Your task to perform on an android device: Look up the best rated 3d printer on Ali Express Image 0: 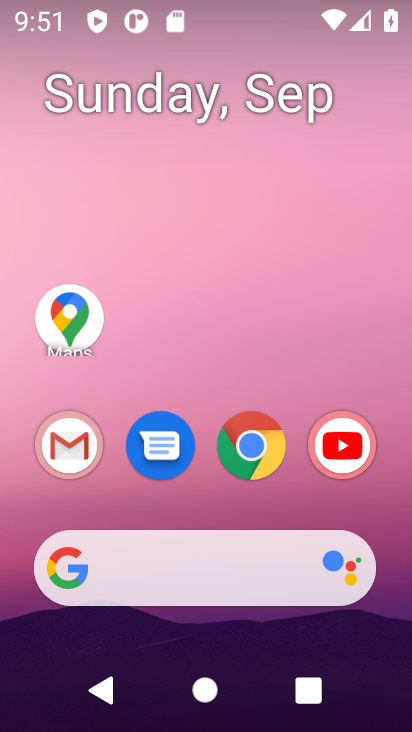
Step 0: drag from (104, 602) to (0, 446)
Your task to perform on an android device: Look up the best rated 3d printer on Ali Express Image 1: 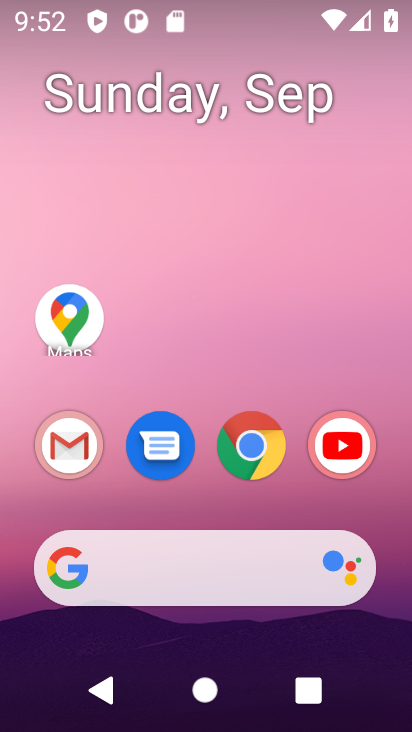
Step 1: click (263, 446)
Your task to perform on an android device: Look up the best rated 3d printer on Ali Express Image 2: 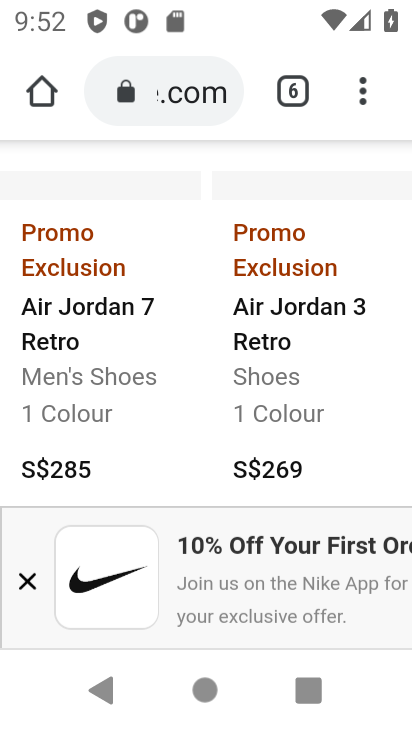
Step 2: drag from (188, 205) to (242, 400)
Your task to perform on an android device: Look up the best rated 3d printer on Ali Express Image 3: 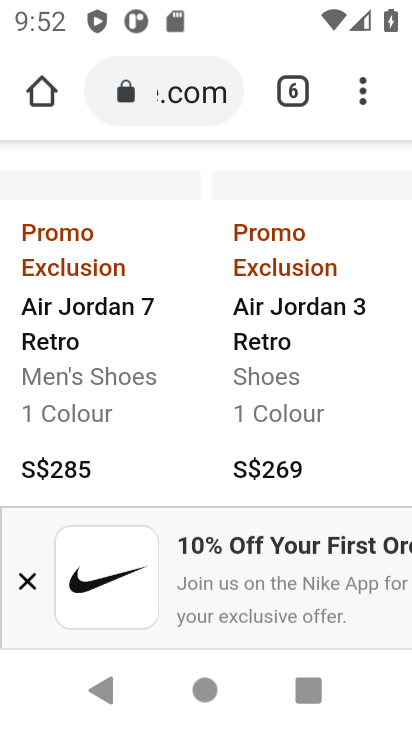
Step 3: click (145, 69)
Your task to perform on an android device: Look up the best rated 3d printer on Ali Express Image 4: 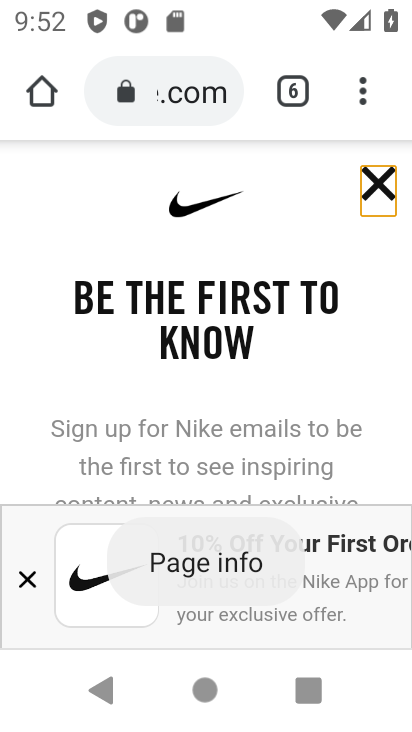
Step 4: click (179, 97)
Your task to perform on an android device: Look up the best rated 3d printer on Ali Express Image 5: 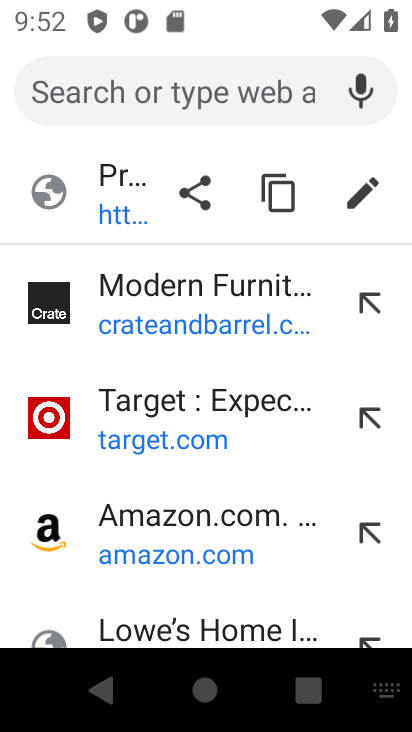
Step 5: type " Ali Express"
Your task to perform on an android device: Look up the best rated 3d printer on Ali Express Image 6: 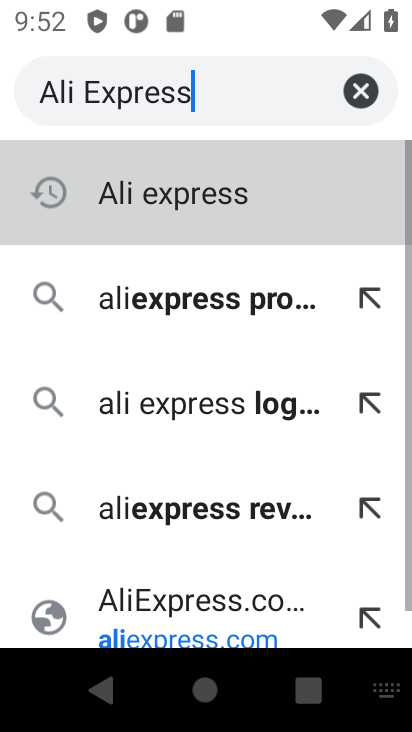
Step 6: press enter
Your task to perform on an android device: Look up the best rated 3d printer on Ali Express Image 7: 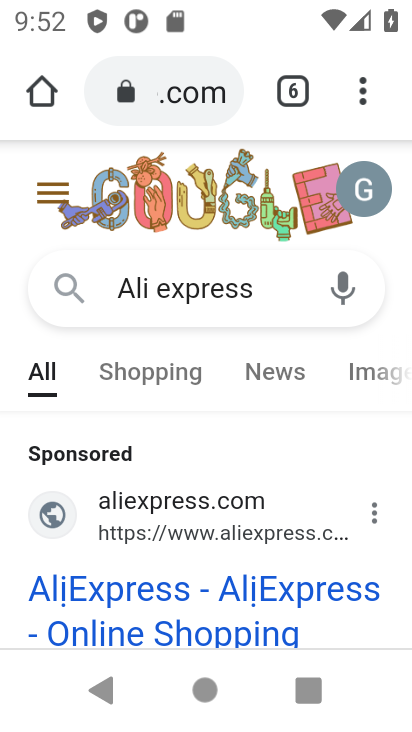
Step 7: click (198, 514)
Your task to perform on an android device: Look up the best rated 3d printer on Ali Express Image 8: 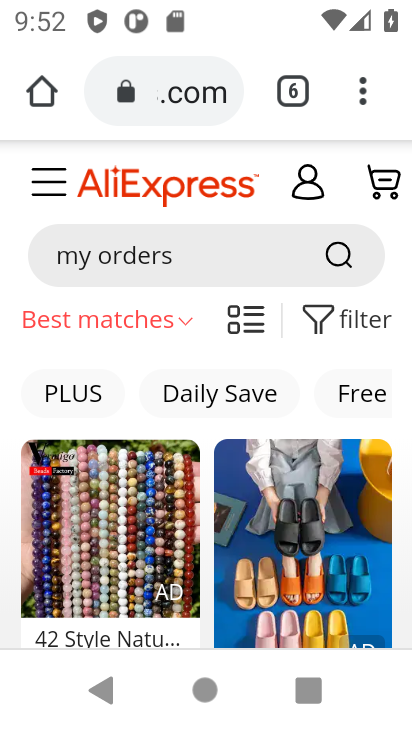
Step 8: click (138, 249)
Your task to perform on an android device: Look up the best rated 3d printer on Ali Express Image 9: 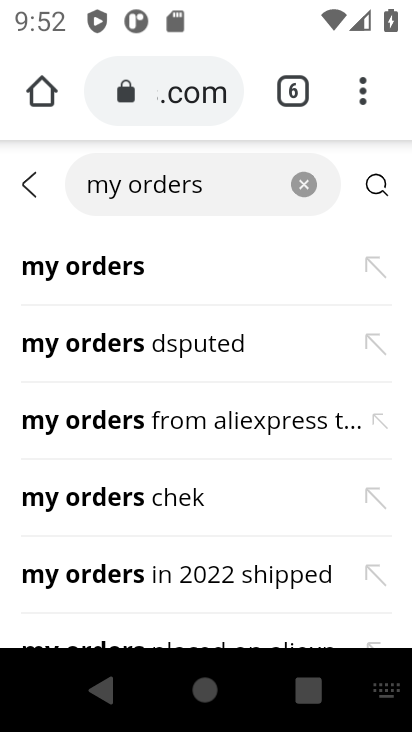
Step 9: press enter
Your task to perform on an android device: Look up the best rated 3d printer on Ali Express Image 10: 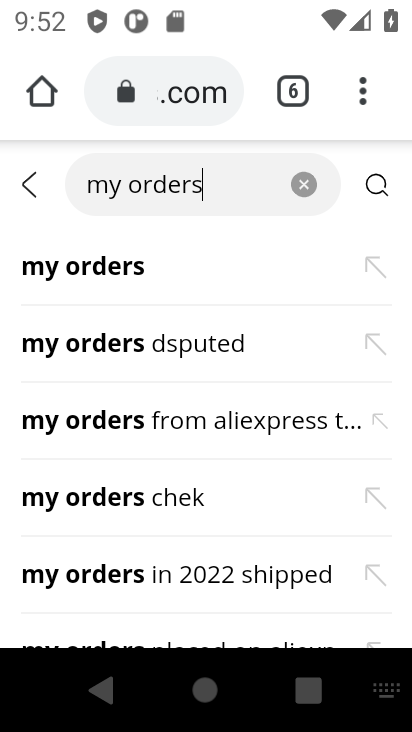
Step 10: type " best rated 3d printer"
Your task to perform on an android device: Look up the best rated 3d printer on Ali Express Image 11: 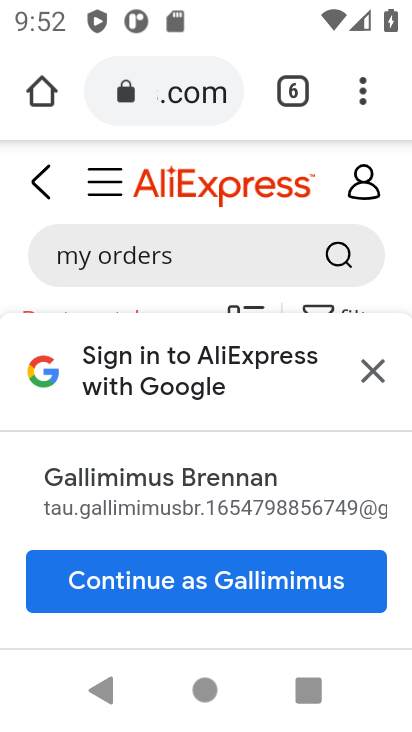
Step 11: click (380, 370)
Your task to perform on an android device: Look up the best rated 3d printer on Ali Express Image 12: 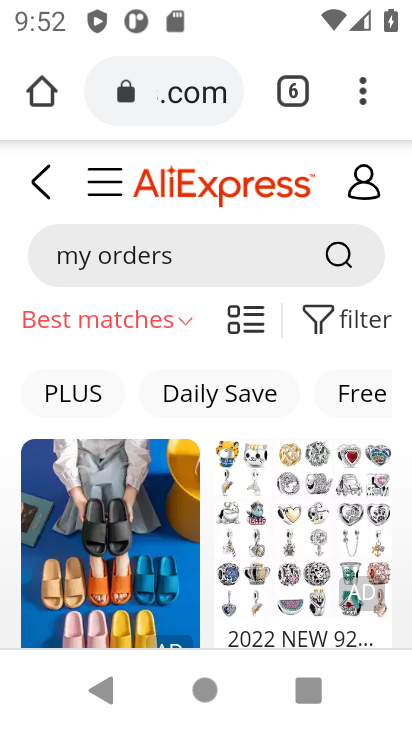
Step 12: drag from (280, 430) to (262, 162)
Your task to perform on an android device: Look up the best rated 3d printer on Ali Express Image 13: 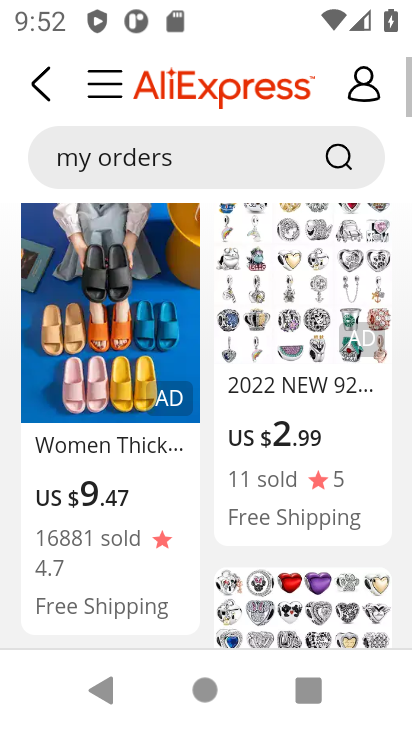
Step 13: drag from (268, 442) to (248, 201)
Your task to perform on an android device: Look up the best rated 3d printer on Ali Express Image 14: 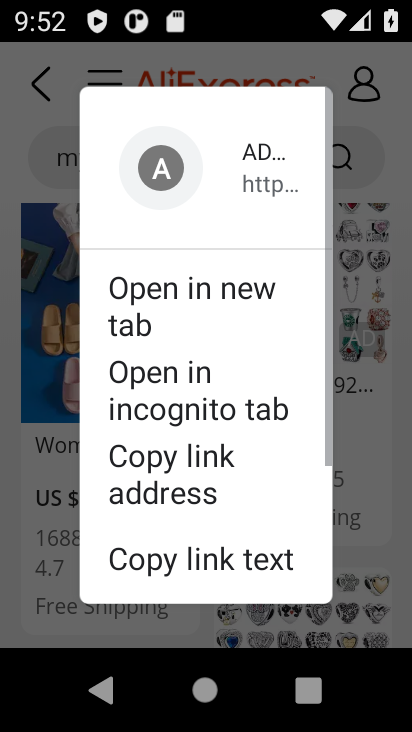
Step 14: click (387, 216)
Your task to perform on an android device: Look up the best rated 3d printer on Ali Express Image 15: 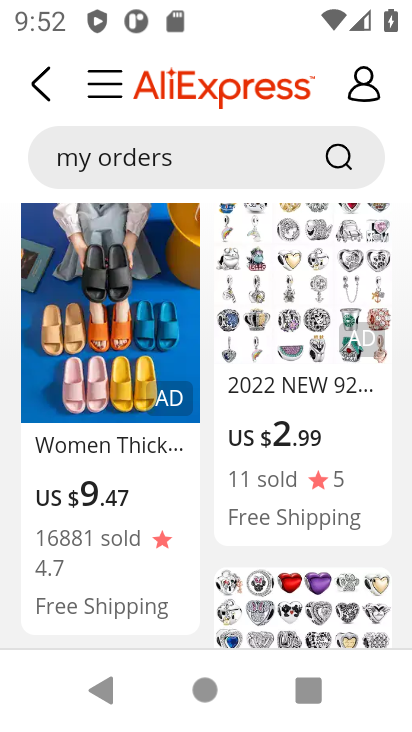
Step 15: click (209, 158)
Your task to perform on an android device: Look up the best rated 3d printer on Ali Express Image 16: 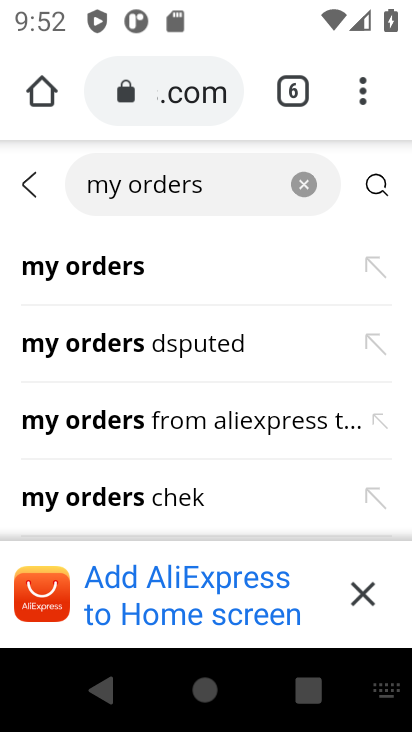
Step 16: click (302, 180)
Your task to perform on an android device: Look up the best rated 3d printer on Ali Express Image 17: 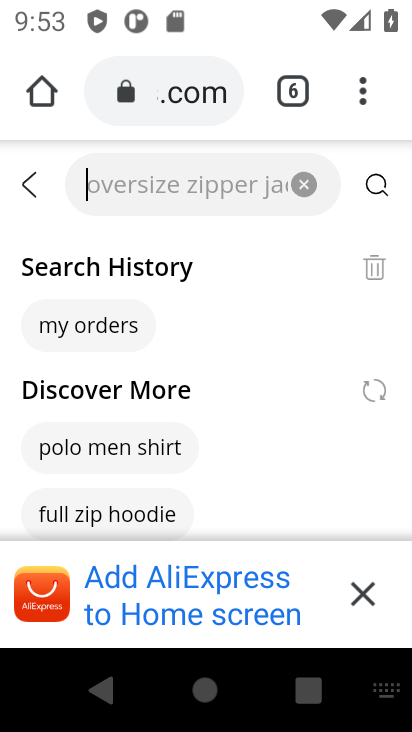
Step 17: type "best rated 3d printer "
Your task to perform on an android device: Look up the best rated 3d printer on Ali Express Image 18: 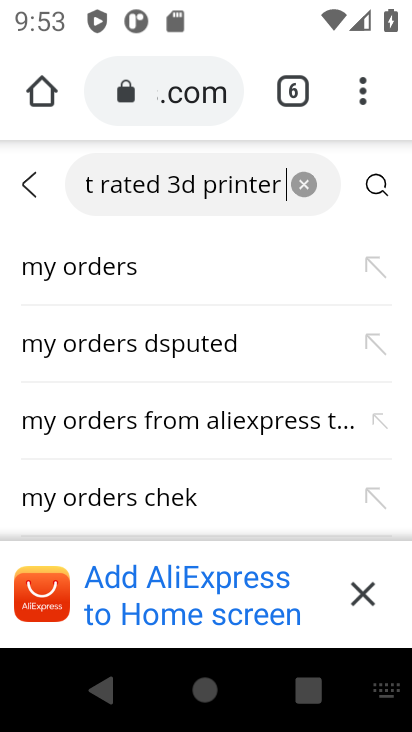
Step 18: press enter
Your task to perform on an android device: Look up the best rated 3d printer on Ali Express Image 19: 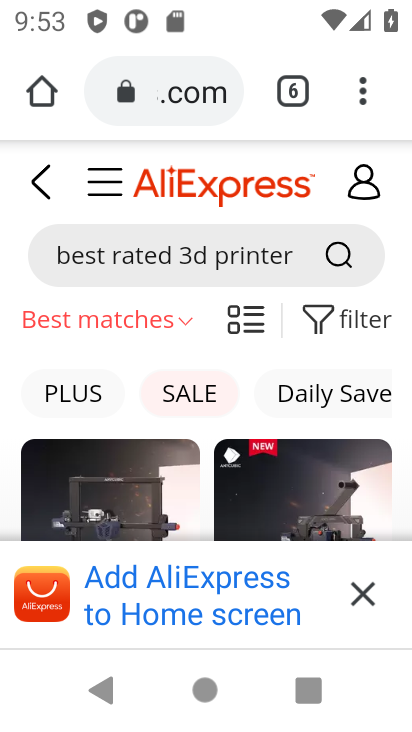
Step 19: click (289, 182)
Your task to perform on an android device: Look up the best rated 3d printer on Ali Express Image 20: 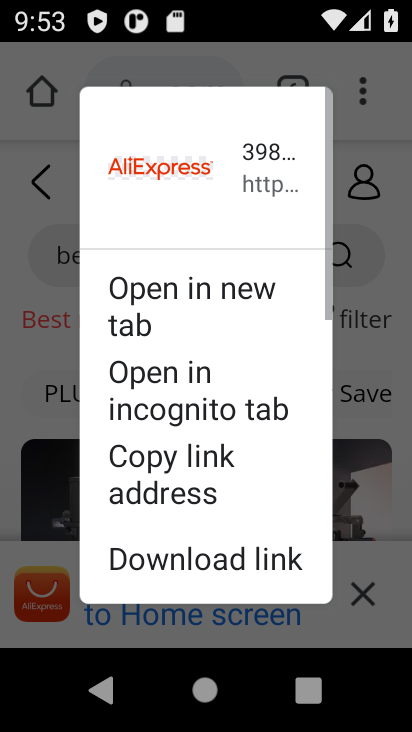
Step 20: click (286, 326)
Your task to perform on an android device: Look up the best rated 3d printer on Ali Express Image 21: 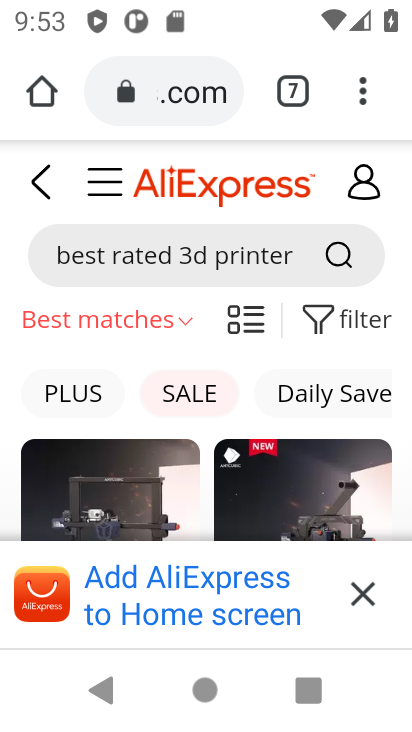
Step 21: click (208, 223)
Your task to perform on an android device: Look up the best rated 3d printer on Ali Express Image 22: 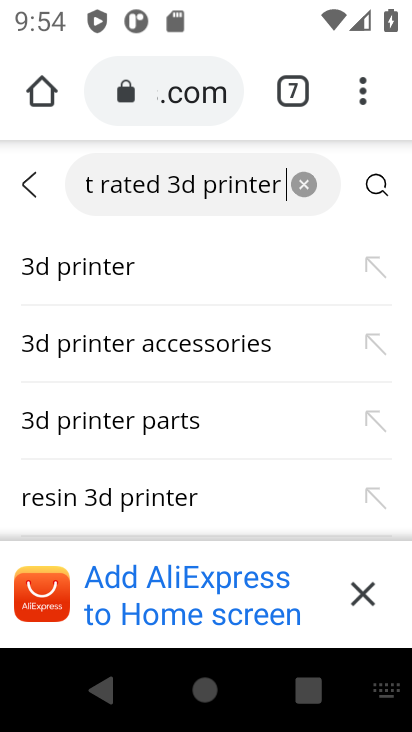
Step 22: task complete